Your task to perform on an android device: Google the capital of Colombia Image 0: 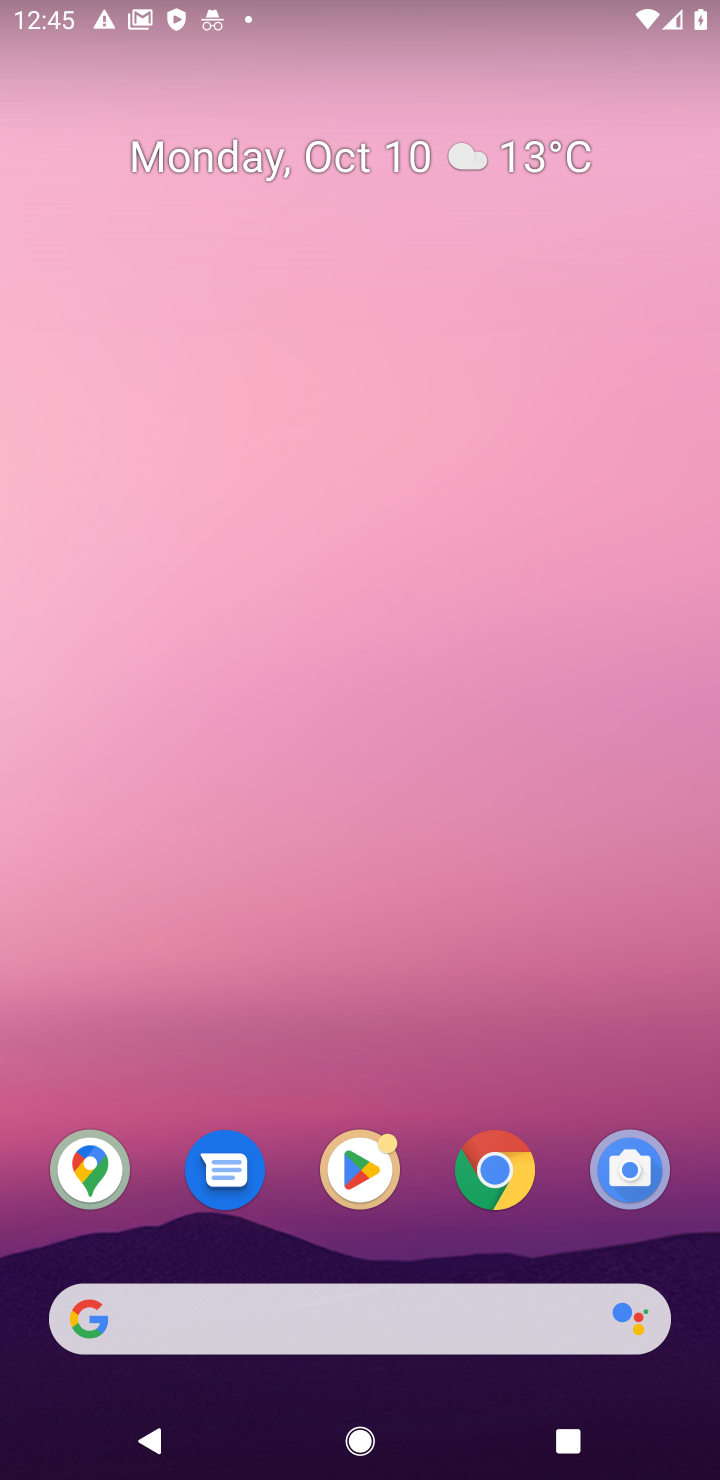
Step 0: click (497, 1167)
Your task to perform on an android device: Google the capital of Colombia Image 1: 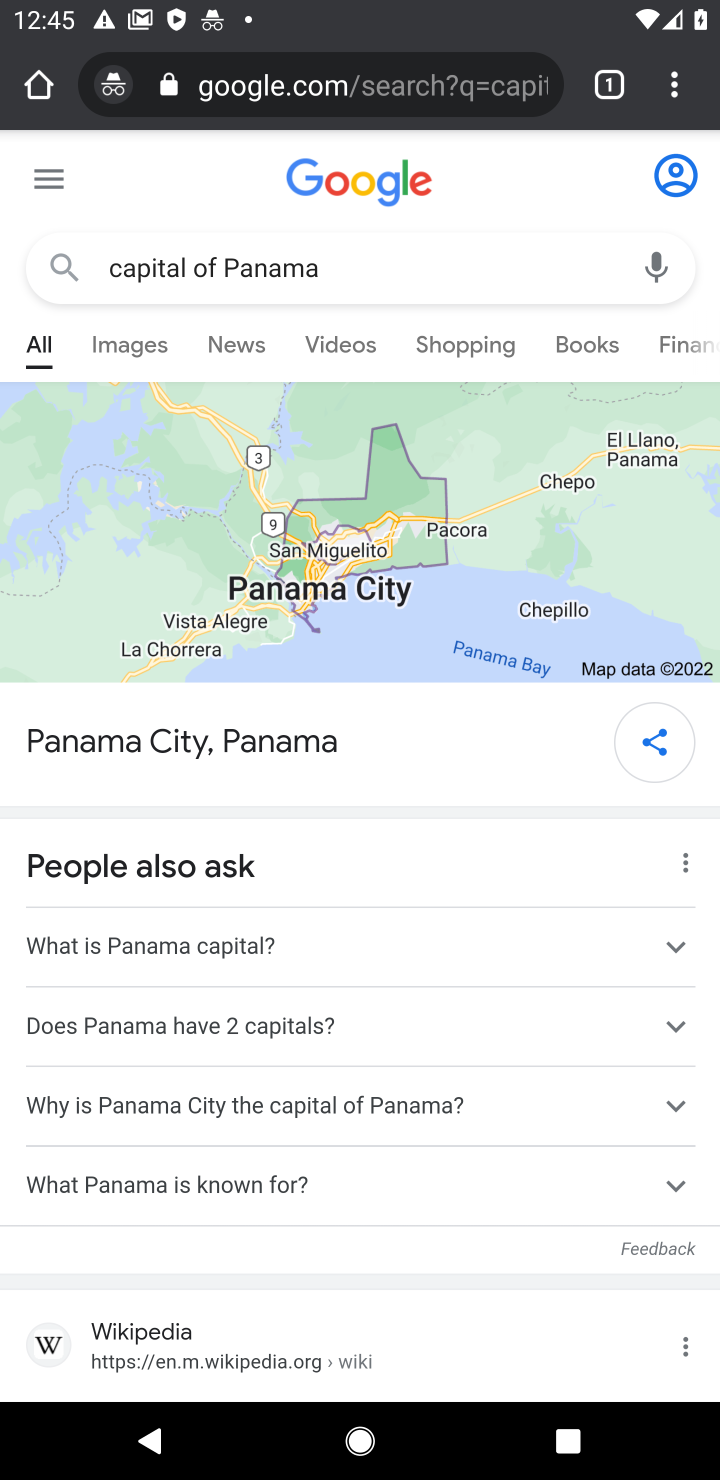
Step 1: click (346, 101)
Your task to perform on an android device: Google the capital of Colombia Image 2: 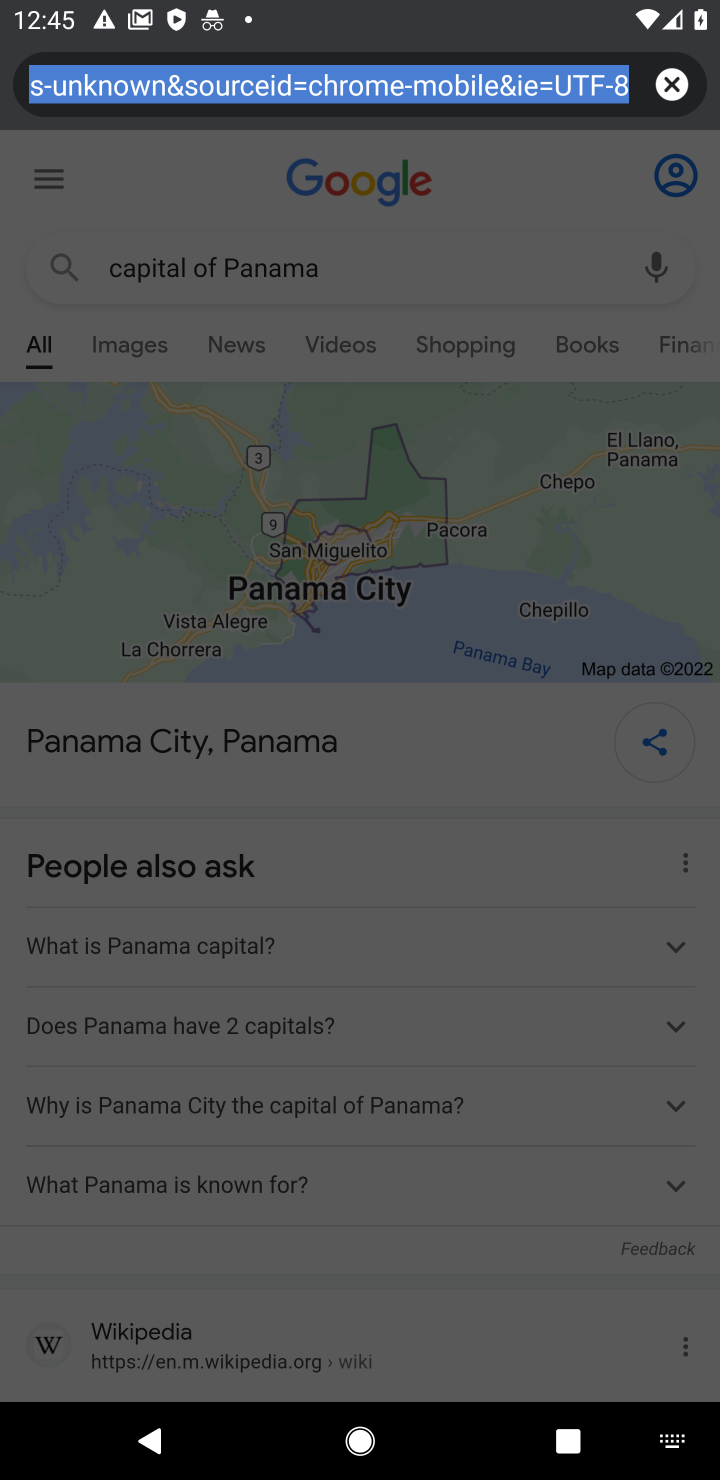
Step 2: click (670, 83)
Your task to perform on an android device: Google the capital of Colombia Image 3: 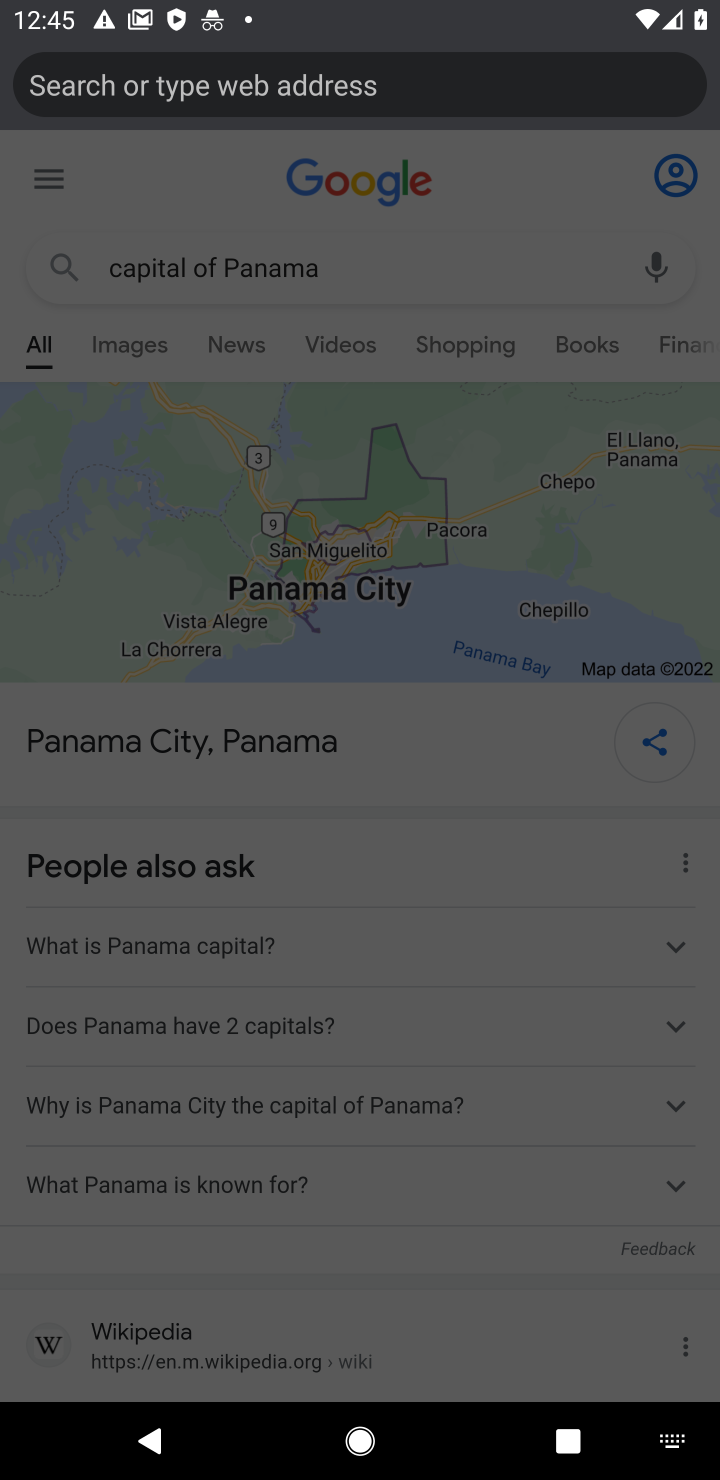
Step 3: type "capital of Colombia"
Your task to perform on an android device: Google the capital of Colombia Image 4: 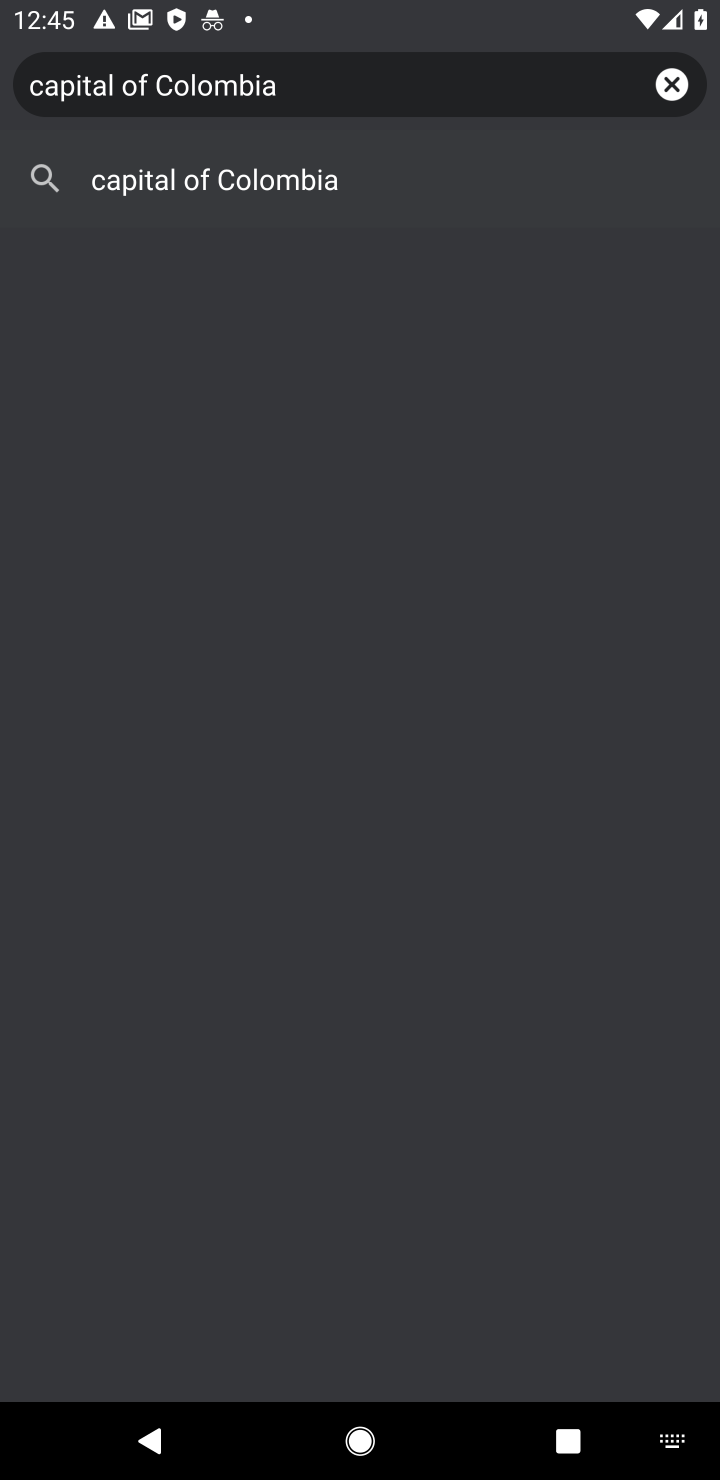
Step 4: click (226, 177)
Your task to perform on an android device: Google the capital of Colombia Image 5: 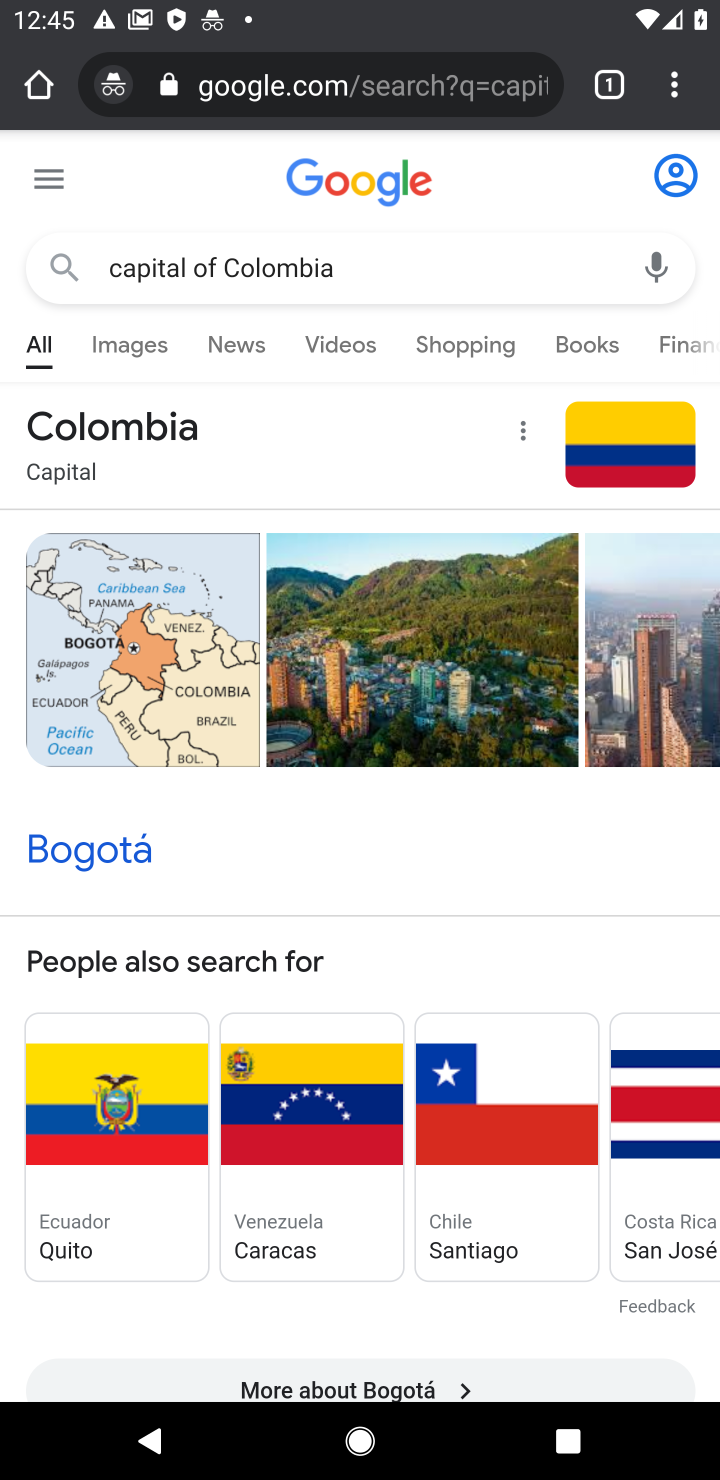
Step 5: task complete